Your task to perform on an android device: turn on location history Image 0: 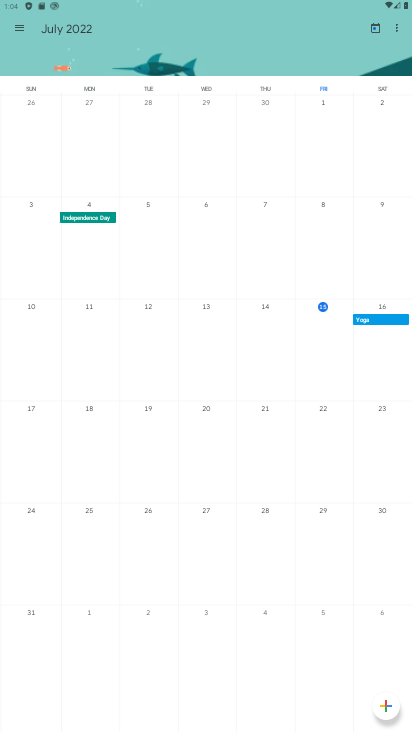
Step 0: press home button
Your task to perform on an android device: turn on location history Image 1: 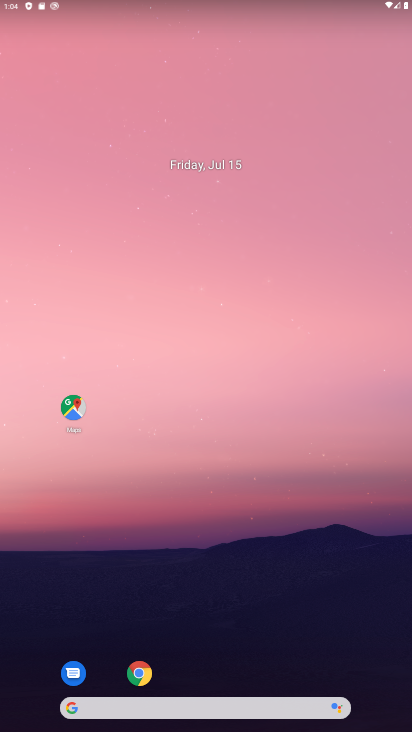
Step 1: drag from (159, 645) to (75, 166)
Your task to perform on an android device: turn on location history Image 2: 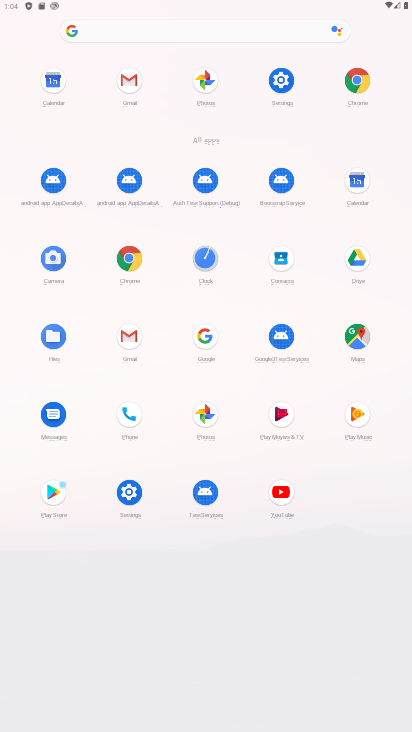
Step 2: click (276, 76)
Your task to perform on an android device: turn on location history Image 3: 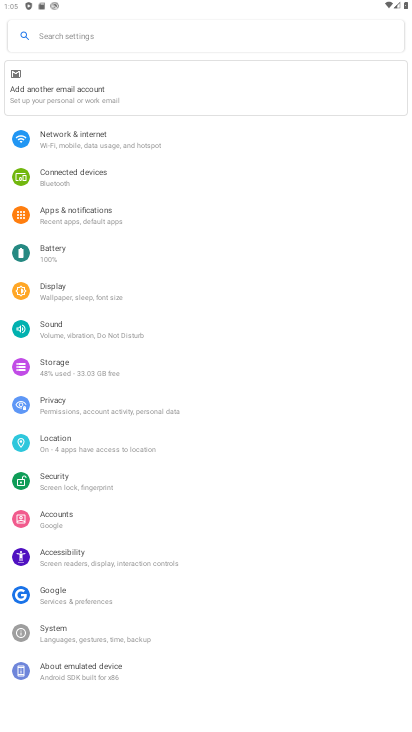
Step 3: click (65, 442)
Your task to perform on an android device: turn on location history Image 4: 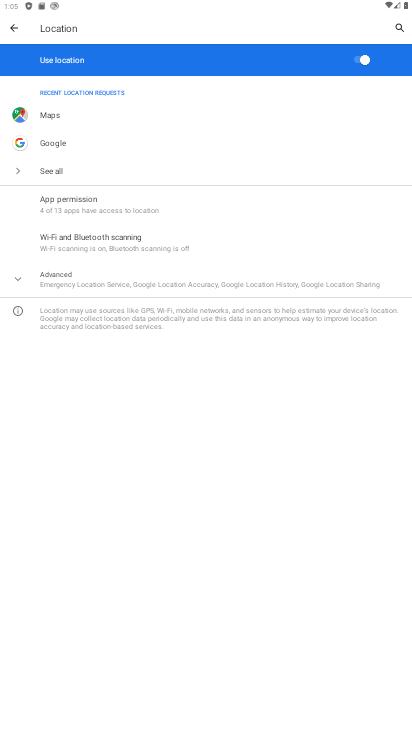
Step 4: click (42, 280)
Your task to perform on an android device: turn on location history Image 5: 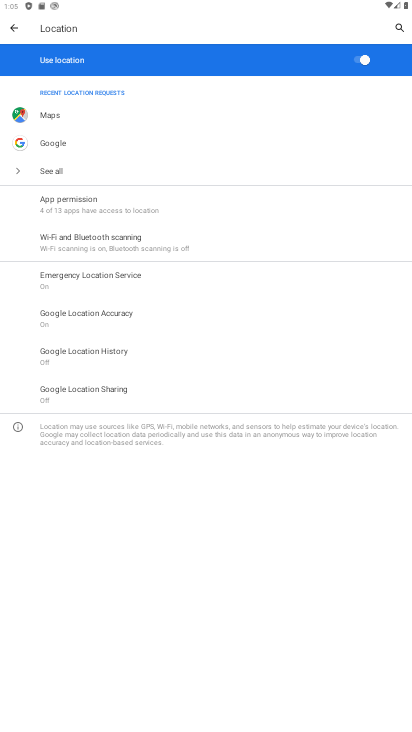
Step 5: click (52, 345)
Your task to perform on an android device: turn on location history Image 6: 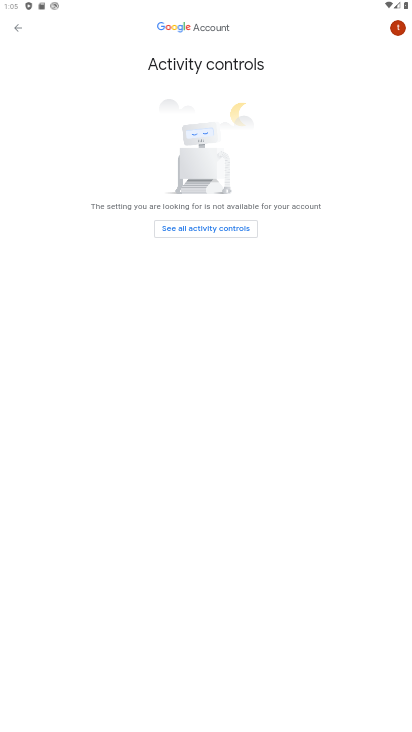
Step 6: click (198, 226)
Your task to perform on an android device: turn on location history Image 7: 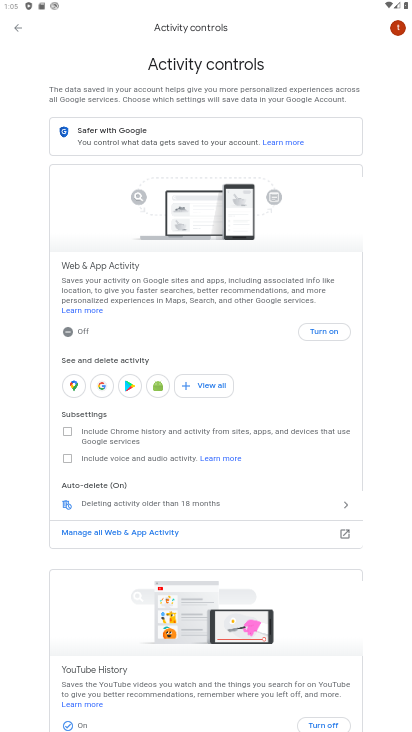
Step 7: click (318, 335)
Your task to perform on an android device: turn on location history Image 8: 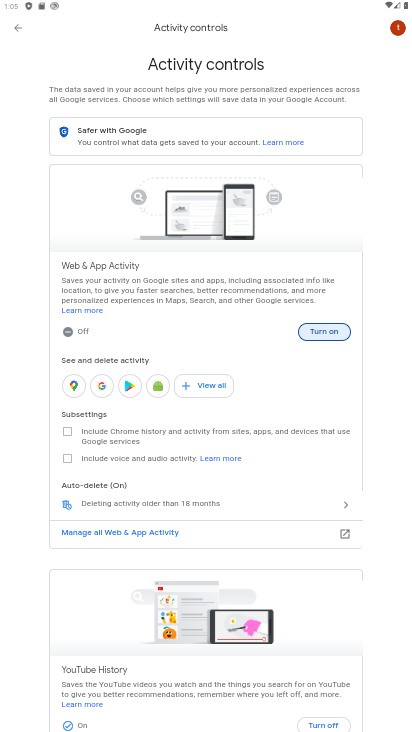
Step 8: click (315, 335)
Your task to perform on an android device: turn on location history Image 9: 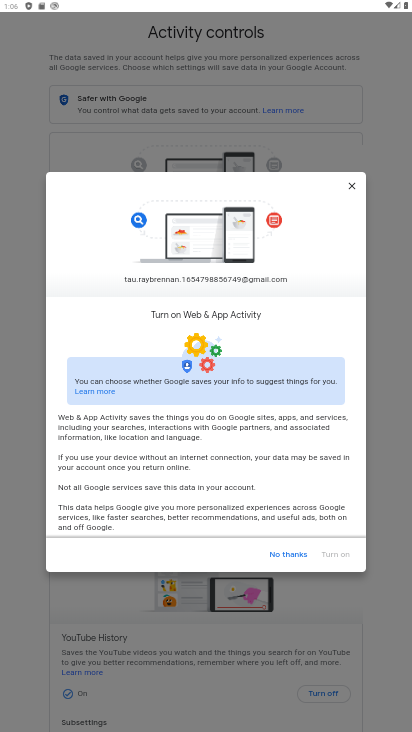
Step 9: drag from (270, 503) to (236, 98)
Your task to perform on an android device: turn on location history Image 10: 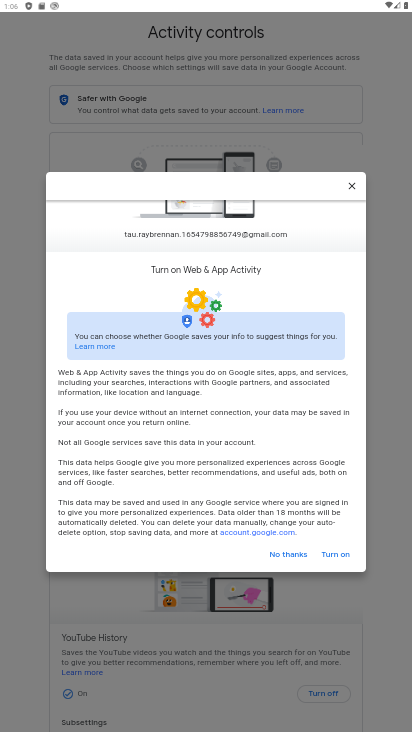
Step 10: click (335, 553)
Your task to perform on an android device: turn on location history Image 11: 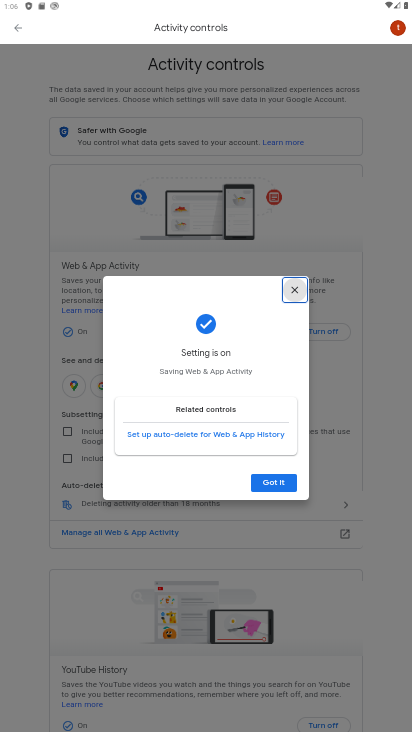
Step 11: click (265, 484)
Your task to perform on an android device: turn on location history Image 12: 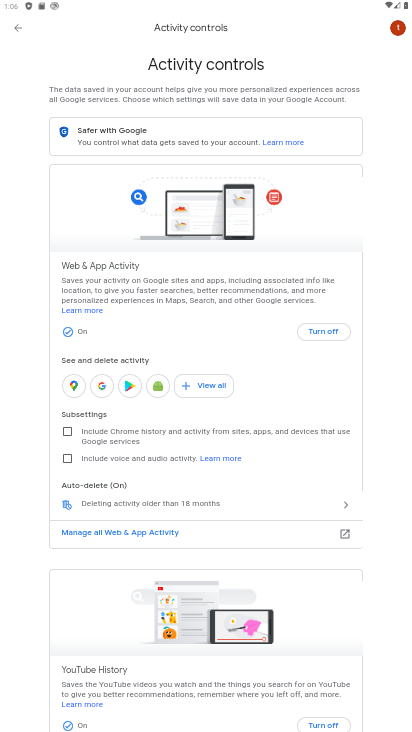
Step 12: task complete